Your task to perform on an android device: open app "YouTube Kids" (install if not already installed) Image 0: 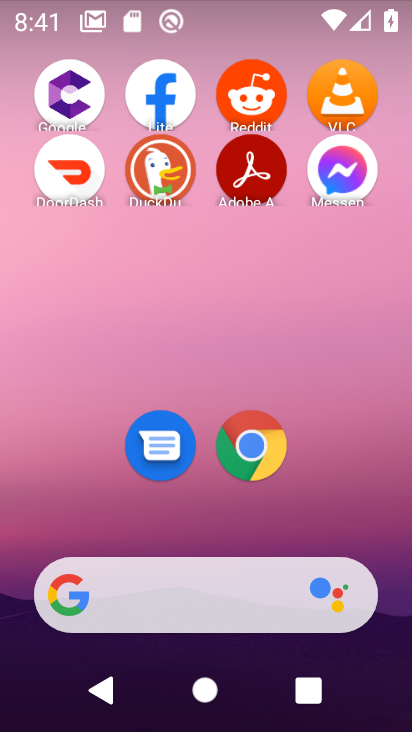
Step 0: drag from (203, 533) to (170, 35)
Your task to perform on an android device: open app "YouTube Kids" (install if not already installed) Image 1: 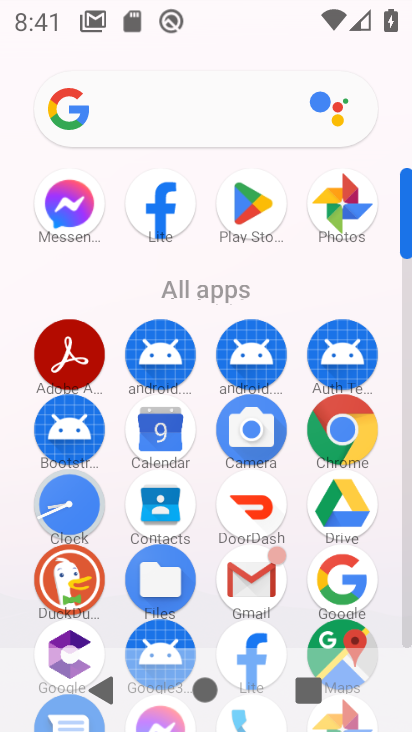
Step 1: drag from (209, 622) to (207, 79)
Your task to perform on an android device: open app "YouTube Kids" (install if not already installed) Image 2: 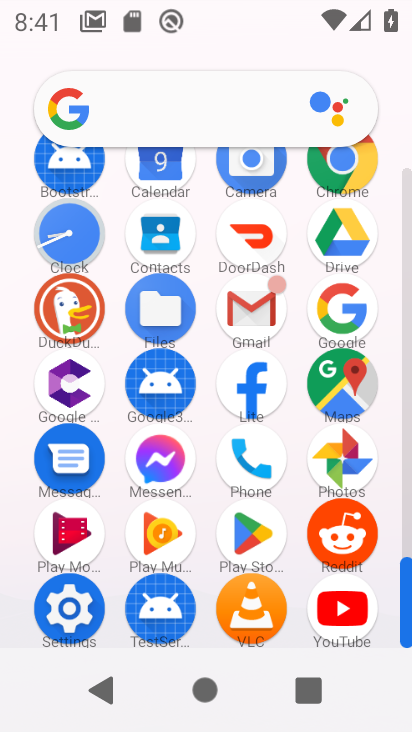
Step 2: click (340, 630)
Your task to perform on an android device: open app "YouTube Kids" (install if not already installed) Image 3: 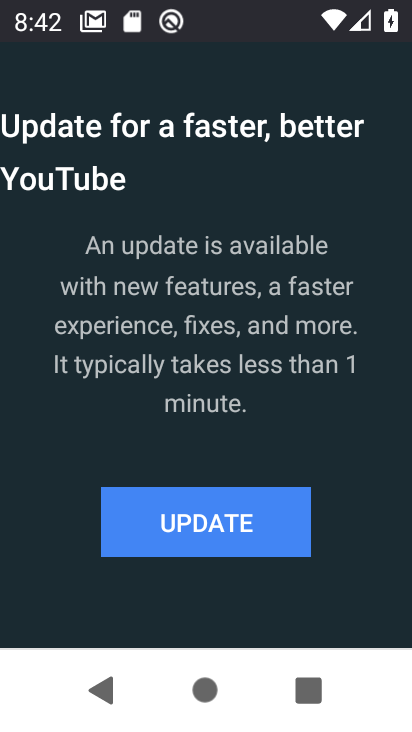
Step 3: click (226, 549)
Your task to perform on an android device: open app "YouTube Kids" (install if not already installed) Image 4: 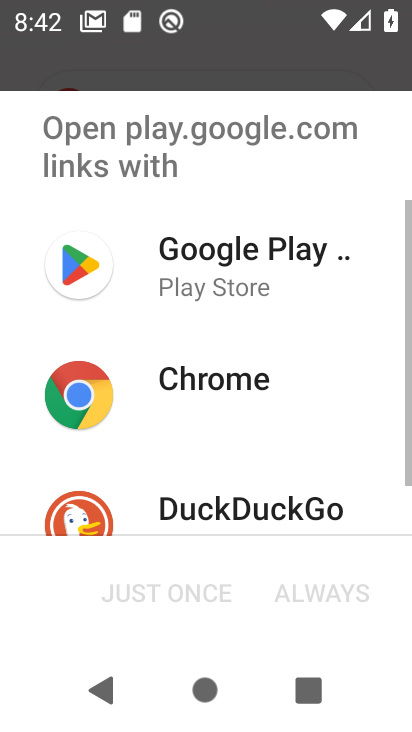
Step 4: drag from (134, 276) to (207, 274)
Your task to perform on an android device: open app "YouTube Kids" (install if not already installed) Image 5: 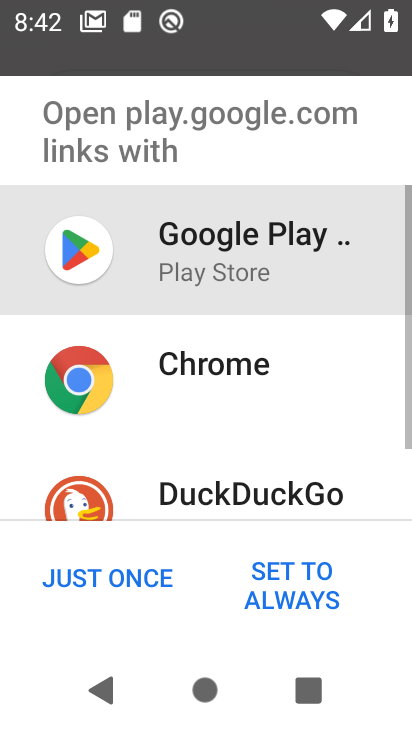
Step 5: click (146, 585)
Your task to perform on an android device: open app "YouTube Kids" (install if not already installed) Image 6: 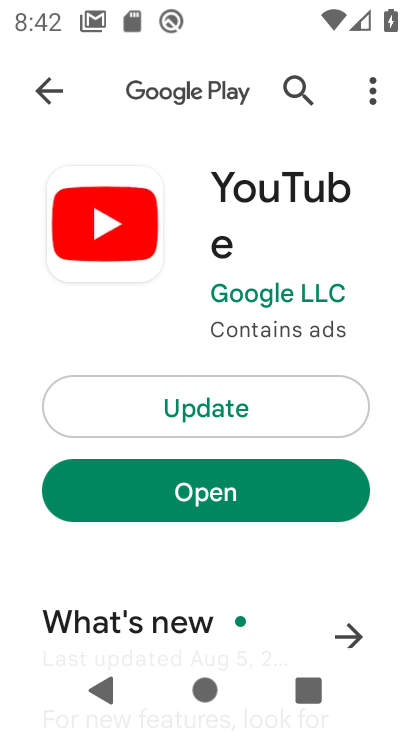
Step 6: click (160, 535)
Your task to perform on an android device: open app "YouTube Kids" (install if not already installed) Image 7: 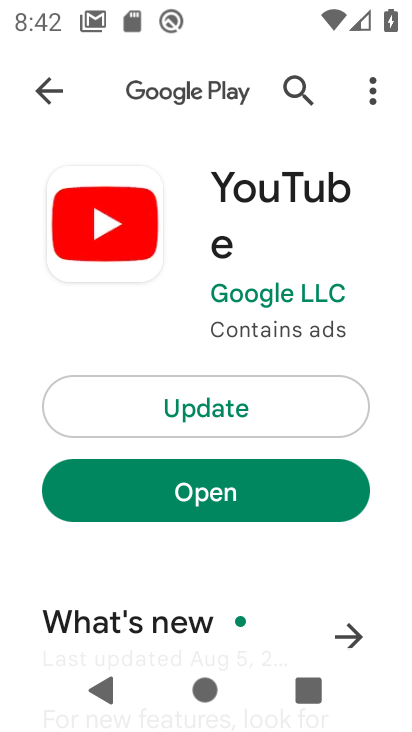
Step 7: click (148, 425)
Your task to perform on an android device: open app "YouTube Kids" (install if not already installed) Image 8: 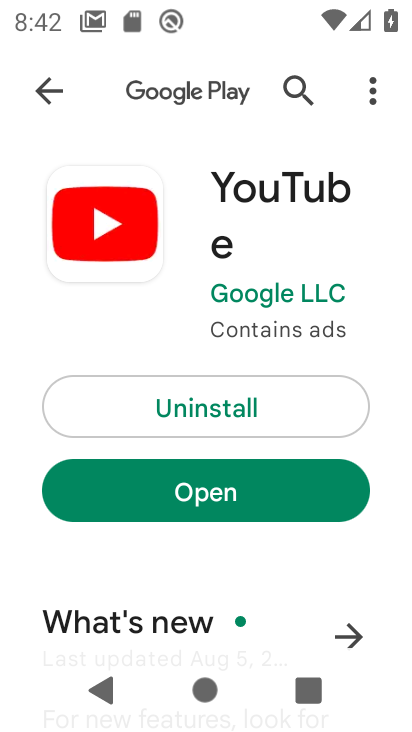
Step 8: click (224, 520)
Your task to perform on an android device: open app "YouTube Kids" (install if not already installed) Image 9: 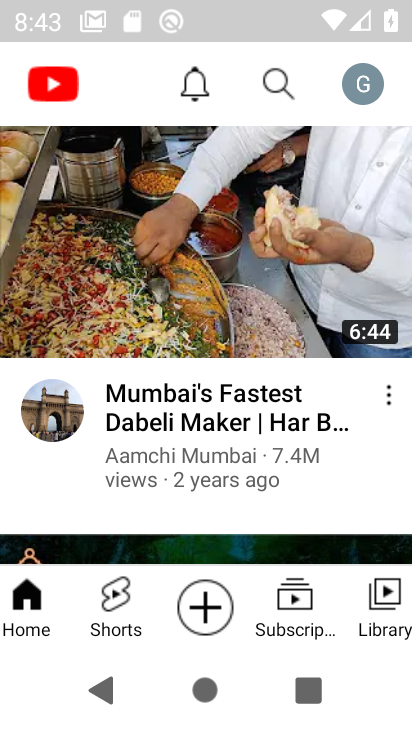
Step 9: task complete